Your task to perform on an android device: Open the web browser Image 0: 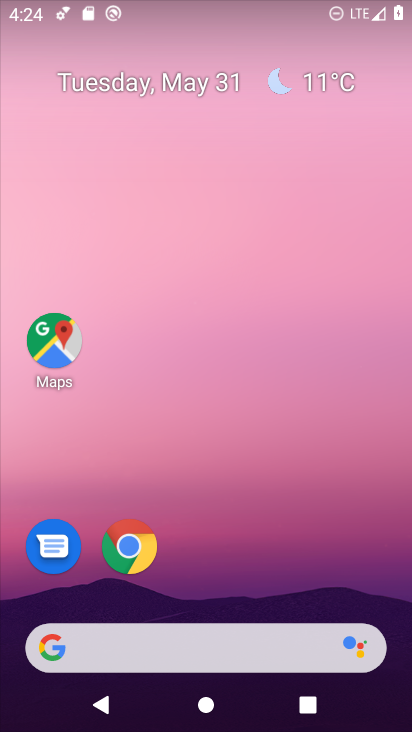
Step 0: click (129, 545)
Your task to perform on an android device: Open the web browser Image 1: 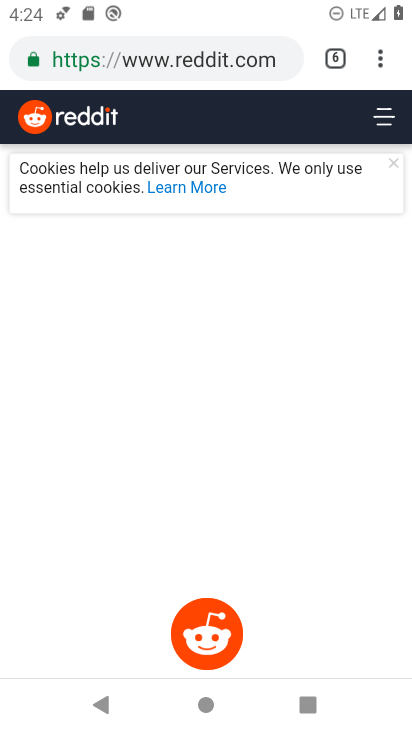
Step 1: task complete